Your task to perform on an android device: check data usage Image 0: 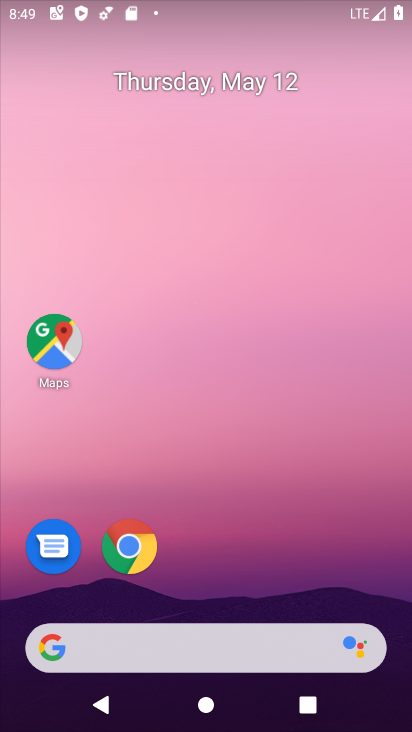
Step 0: drag from (227, 561) to (289, 65)
Your task to perform on an android device: check data usage Image 1: 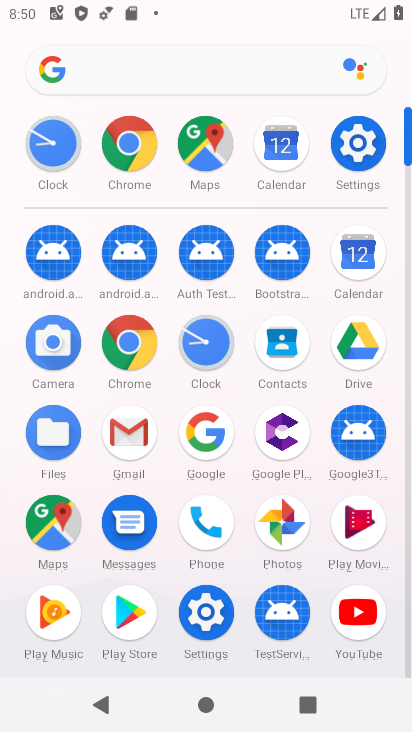
Step 1: click (350, 146)
Your task to perform on an android device: check data usage Image 2: 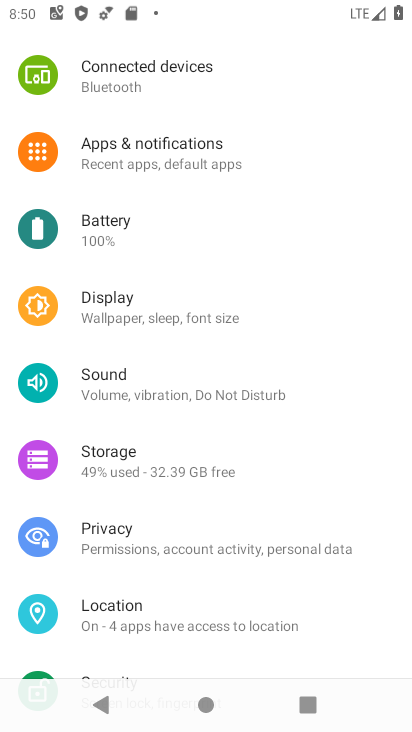
Step 2: drag from (216, 144) to (211, 689)
Your task to perform on an android device: check data usage Image 3: 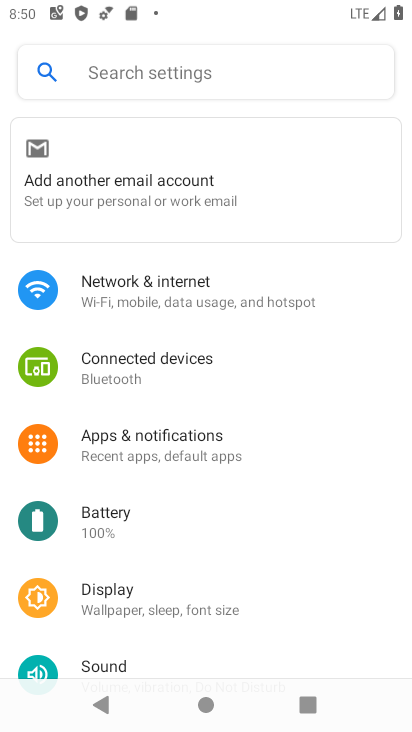
Step 3: click (192, 303)
Your task to perform on an android device: check data usage Image 4: 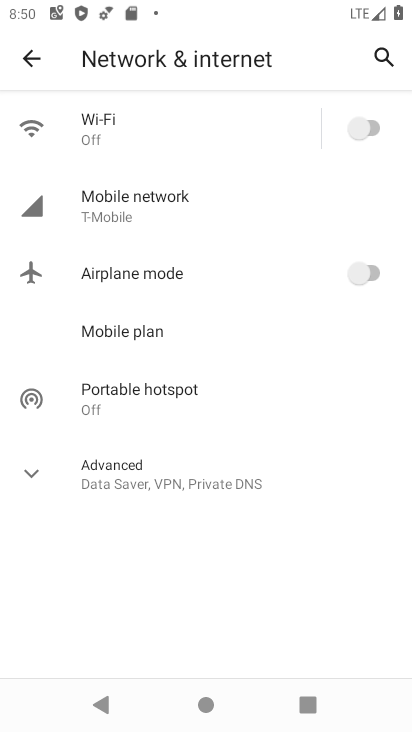
Step 4: click (157, 473)
Your task to perform on an android device: check data usage Image 5: 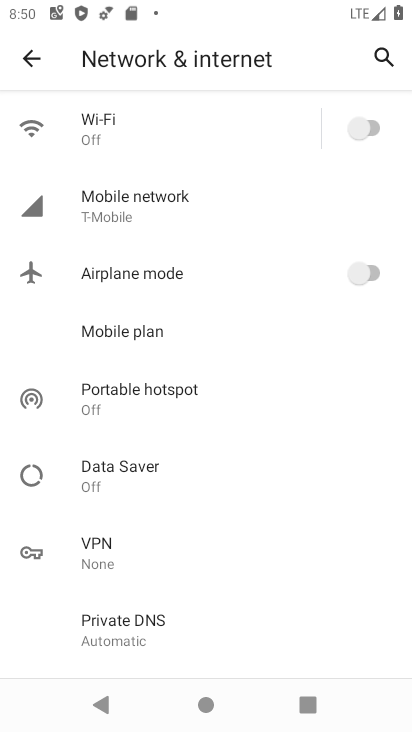
Step 5: click (143, 196)
Your task to perform on an android device: check data usage Image 6: 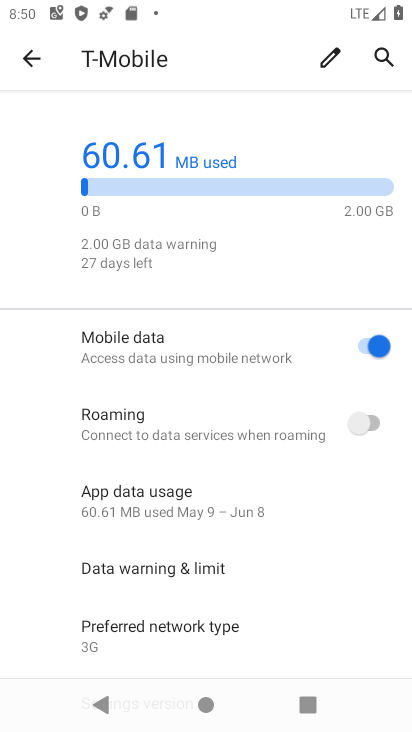
Step 6: click (153, 506)
Your task to perform on an android device: check data usage Image 7: 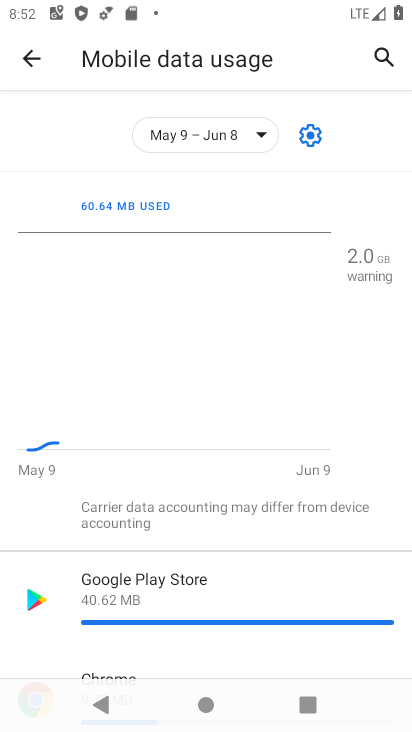
Step 7: task complete